Your task to perform on an android device: Check the weather Image 0: 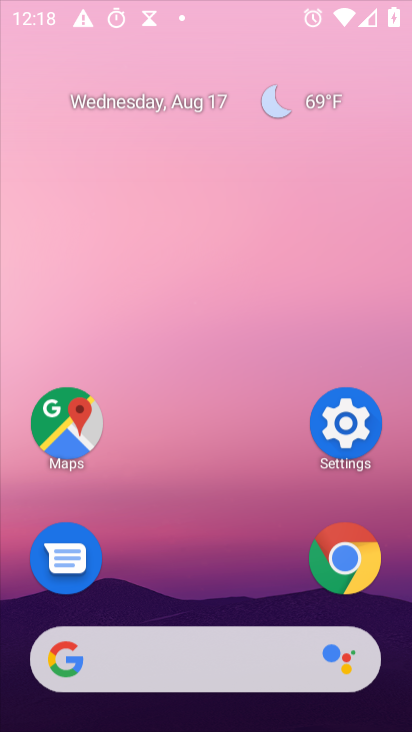
Step 0: click (343, 567)
Your task to perform on an android device: Check the weather Image 1: 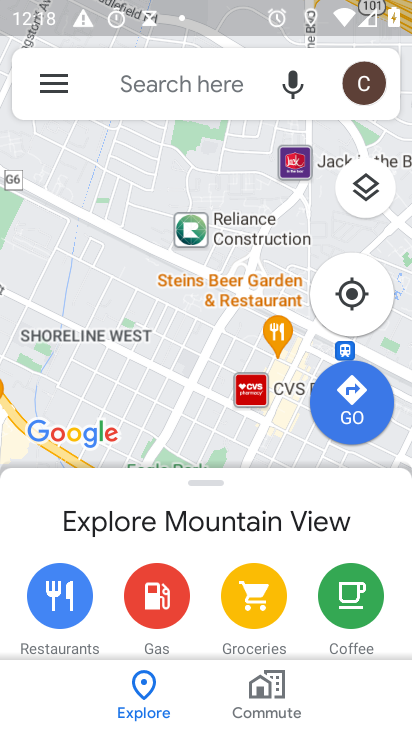
Step 1: press home button
Your task to perform on an android device: Check the weather Image 2: 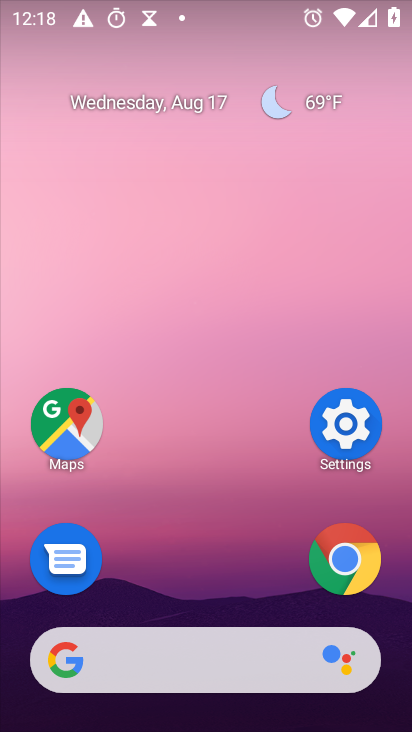
Step 2: click (169, 649)
Your task to perform on an android device: Check the weather Image 3: 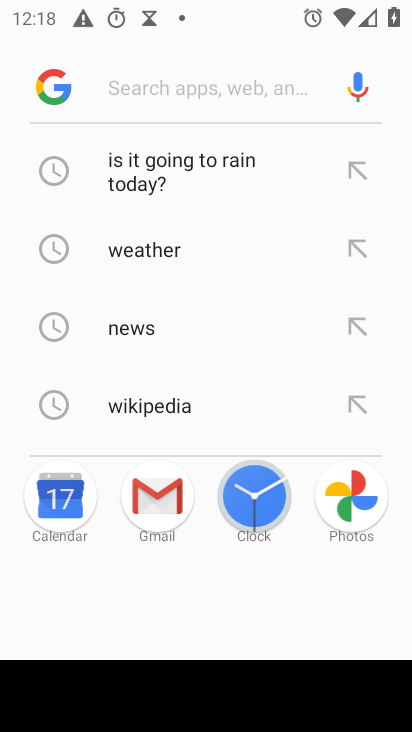
Step 3: click (152, 246)
Your task to perform on an android device: Check the weather Image 4: 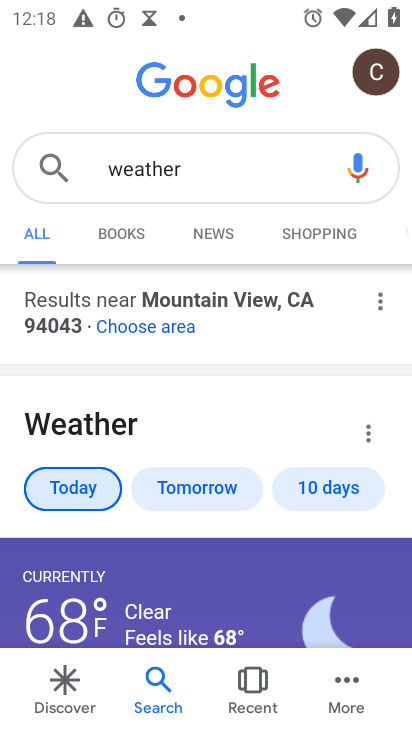
Step 4: task complete